Your task to perform on an android device: delete the emails in spam in the gmail app Image 0: 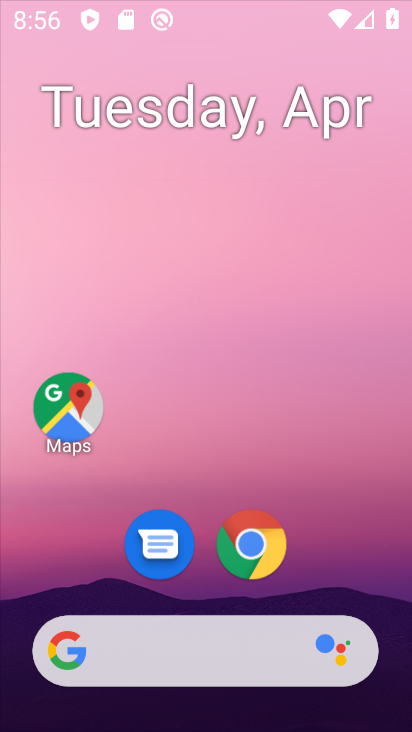
Step 0: click (256, 556)
Your task to perform on an android device: delete the emails in spam in the gmail app Image 1: 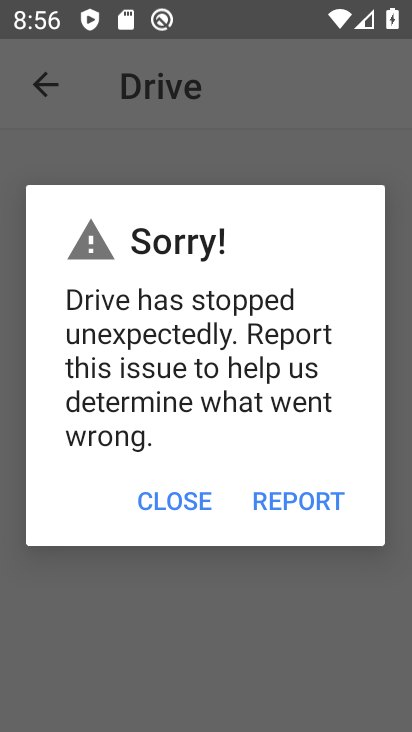
Step 1: press home button
Your task to perform on an android device: delete the emails in spam in the gmail app Image 2: 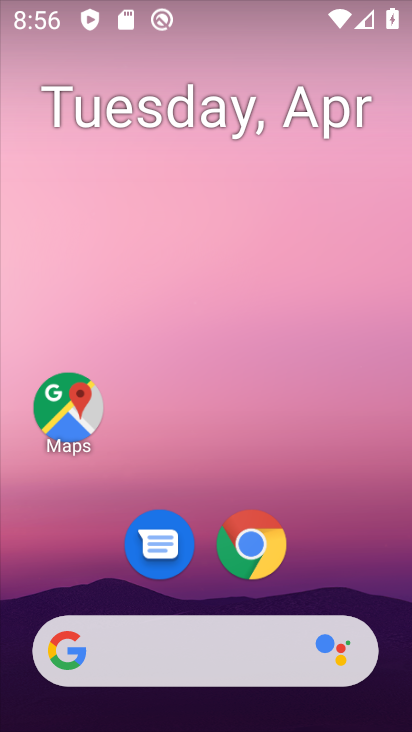
Step 2: drag from (328, 558) to (332, 45)
Your task to perform on an android device: delete the emails in spam in the gmail app Image 3: 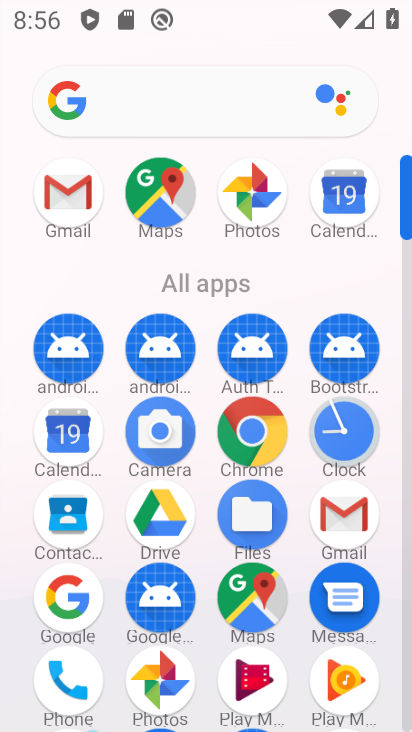
Step 3: click (352, 517)
Your task to perform on an android device: delete the emails in spam in the gmail app Image 4: 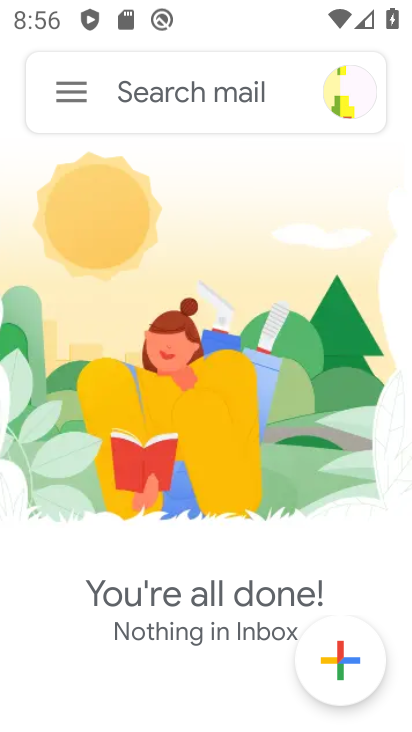
Step 4: click (67, 97)
Your task to perform on an android device: delete the emails in spam in the gmail app Image 5: 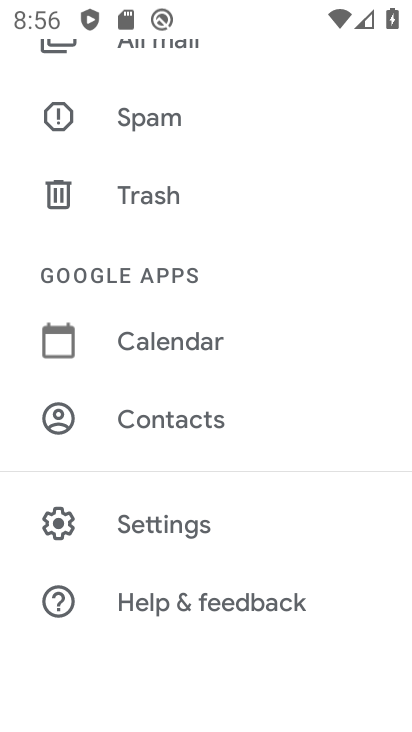
Step 5: click (128, 123)
Your task to perform on an android device: delete the emails in spam in the gmail app Image 6: 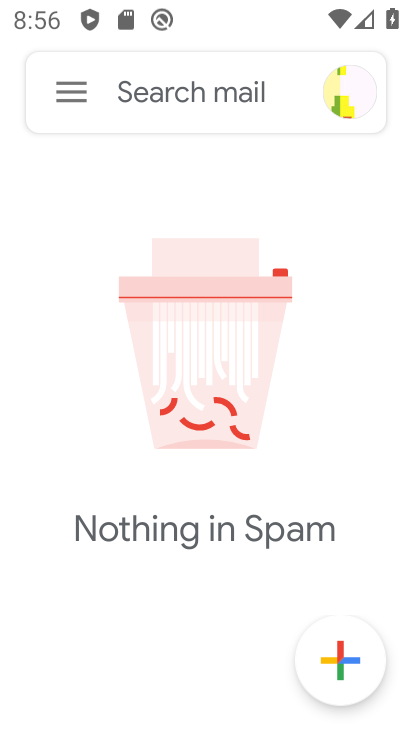
Step 6: task complete